Your task to perform on an android device: move a message to another label in the gmail app Image 0: 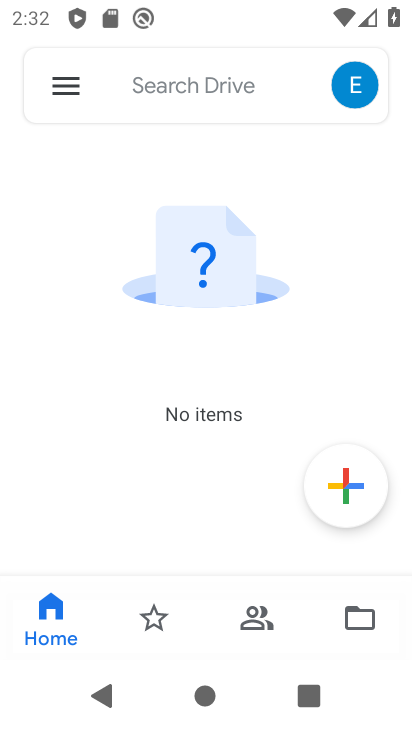
Step 0: press home button
Your task to perform on an android device: move a message to another label in the gmail app Image 1: 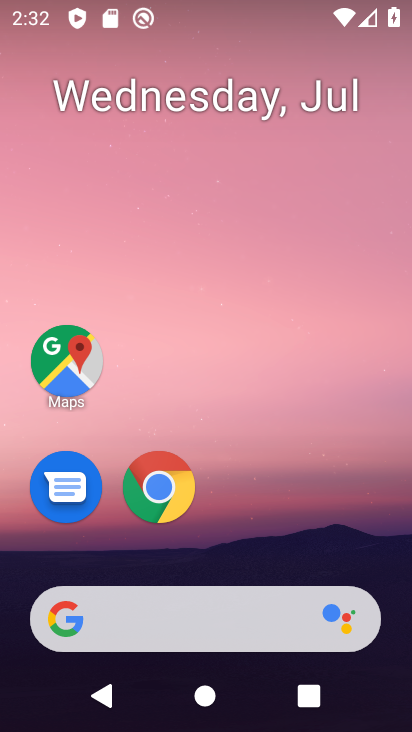
Step 1: drag from (360, 563) to (300, 134)
Your task to perform on an android device: move a message to another label in the gmail app Image 2: 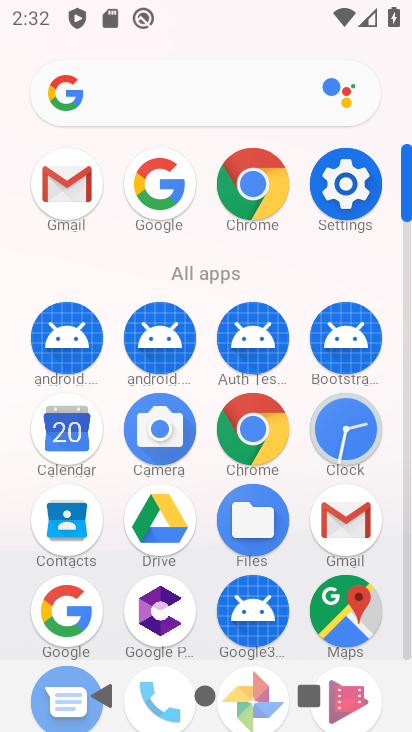
Step 2: click (59, 190)
Your task to perform on an android device: move a message to another label in the gmail app Image 3: 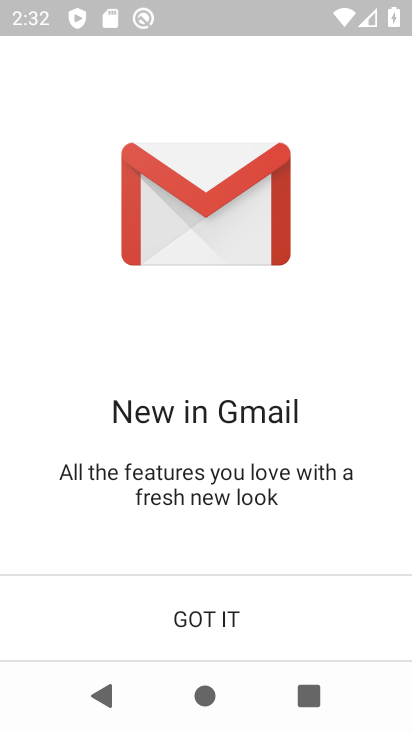
Step 3: click (219, 611)
Your task to perform on an android device: move a message to another label in the gmail app Image 4: 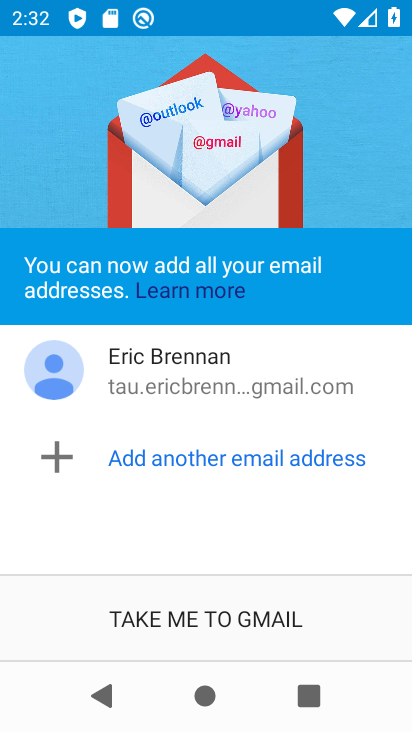
Step 4: click (219, 611)
Your task to perform on an android device: move a message to another label in the gmail app Image 5: 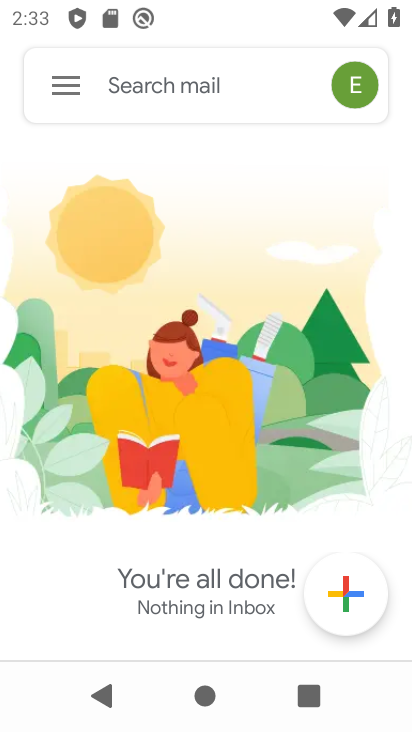
Step 5: task complete